Your task to perform on an android device: Is it going to rain this weekend? Image 0: 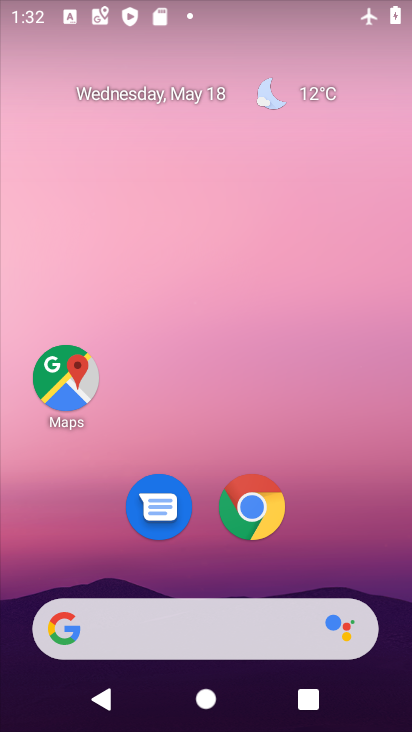
Step 0: click (390, 612)
Your task to perform on an android device: Is it going to rain this weekend? Image 1: 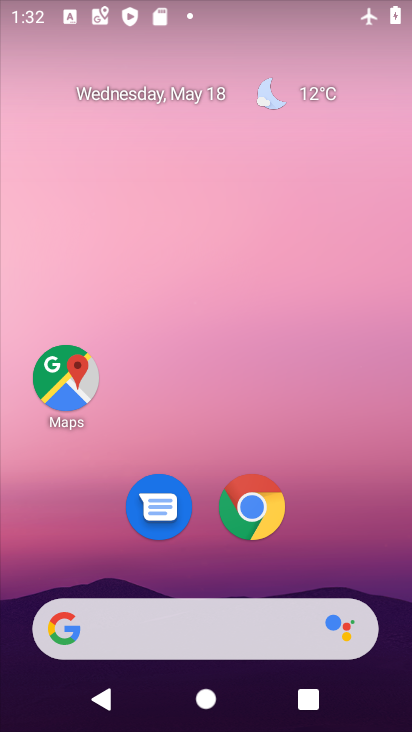
Step 1: click (320, 93)
Your task to perform on an android device: Is it going to rain this weekend? Image 2: 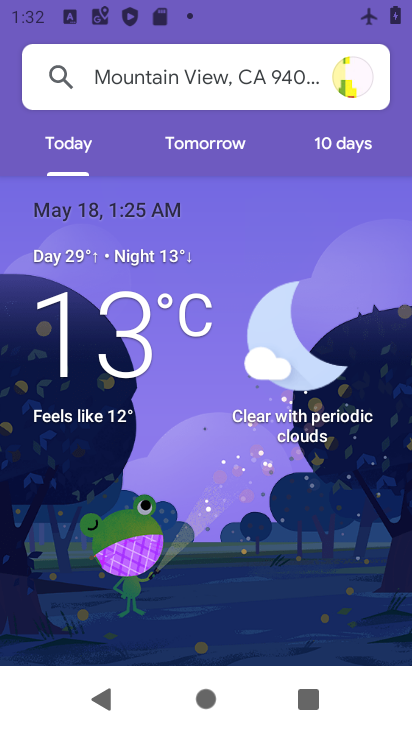
Step 2: click (332, 133)
Your task to perform on an android device: Is it going to rain this weekend? Image 3: 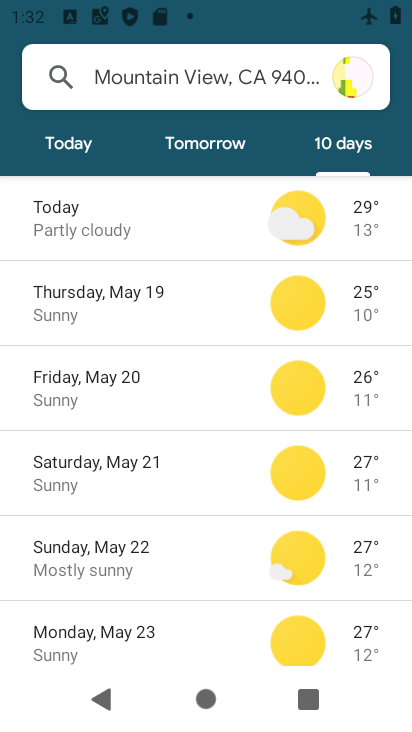
Step 3: task complete